Your task to perform on an android device: Open Google Chrome and click the shortcut for Amazon.com Image 0: 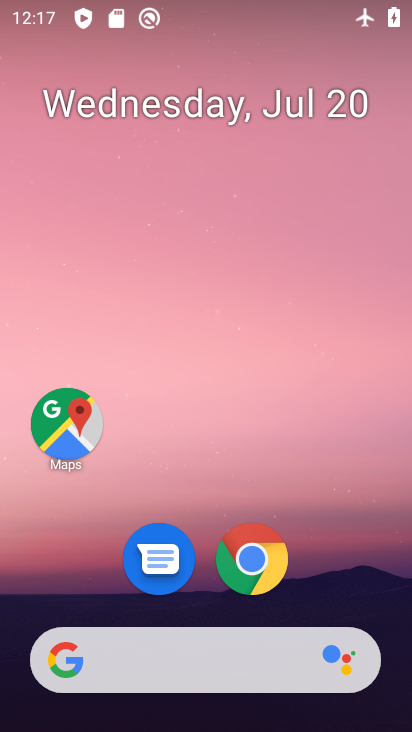
Step 0: drag from (358, 554) to (346, 100)
Your task to perform on an android device: Open Google Chrome and click the shortcut for Amazon.com Image 1: 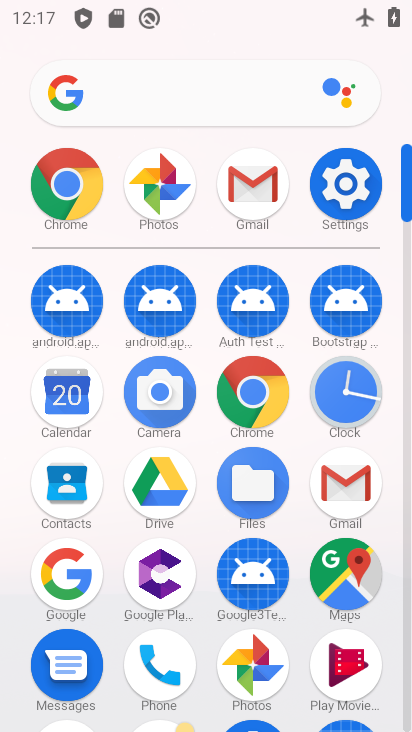
Step 1: click (260, 407)
Your task to perform on an android device: Open Google Chrome and click the shortcut for Amazon.com Image 2: 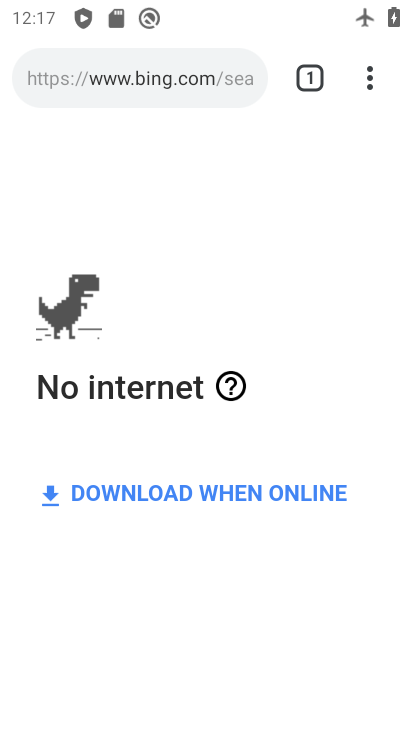
Step 2: task complete